Your task to perform on an android device: stop showing notifications on the lock screen Image 0: 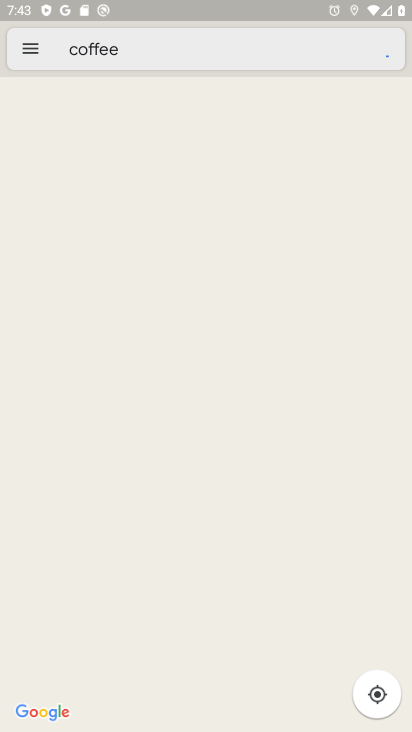
Step 0: press home button
Your task to perform on an android device: stop showing notifications on the lock screen Image 1: 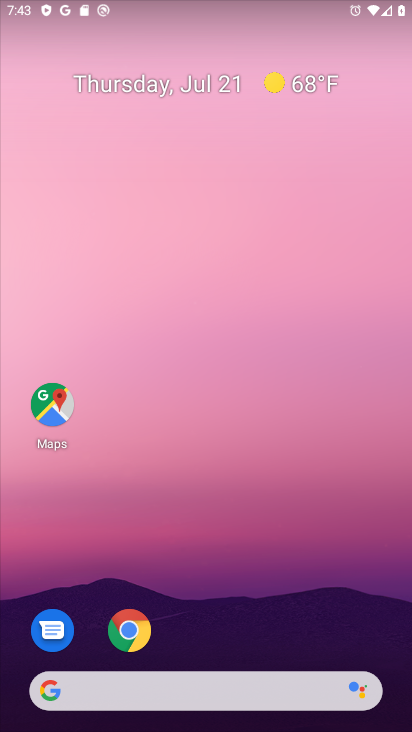
Step 1: drag from (268, 595) to (274, 164)
Your task to perform on an android device: stop showing notifications on the lock screen Image 2: 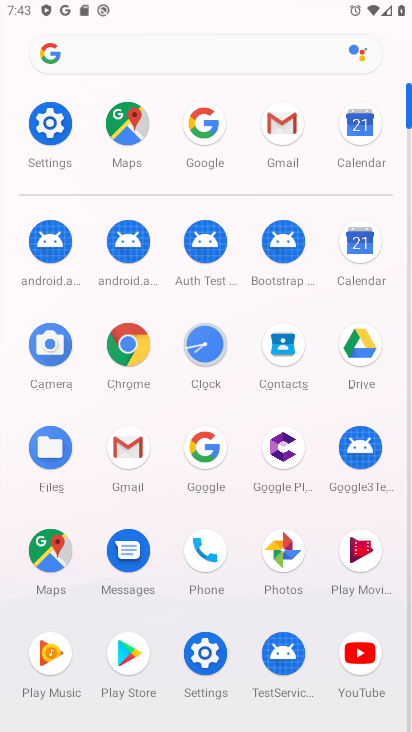
Step 2: click (36, 110)
Your task to perform on an android device: stop showing notifications on the lock screen Image 3: 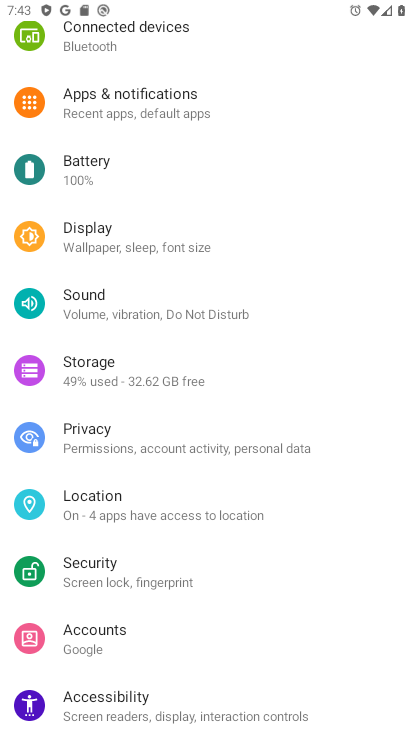
Step 3: click (149, 91)
Your task to perform on an android device: stop showing notifications on the lock screen Image 4: 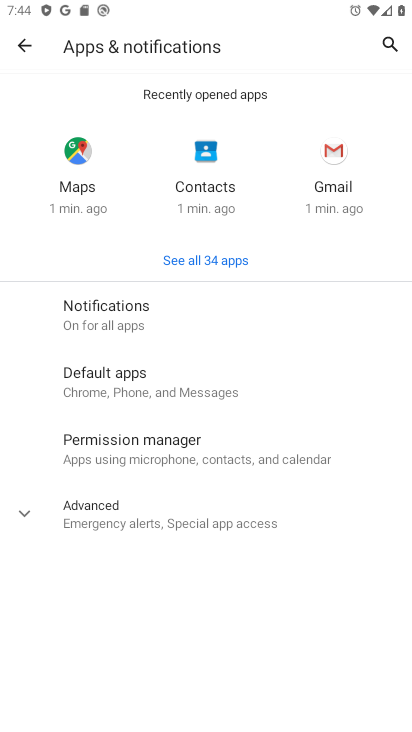
Step 4: click (85, 307)
Your task to perform on an android device: stop showing notifications on the lock screen Image 5: 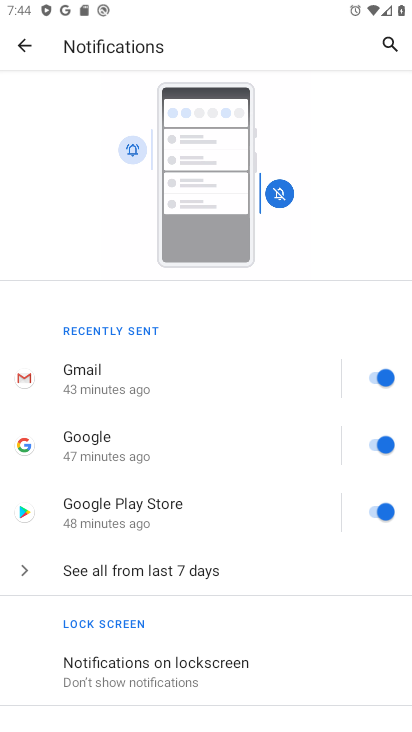
Step 5: click (157, 679)
Your task to perform on an android device: stop showing notifications on the lock screen Image 6: 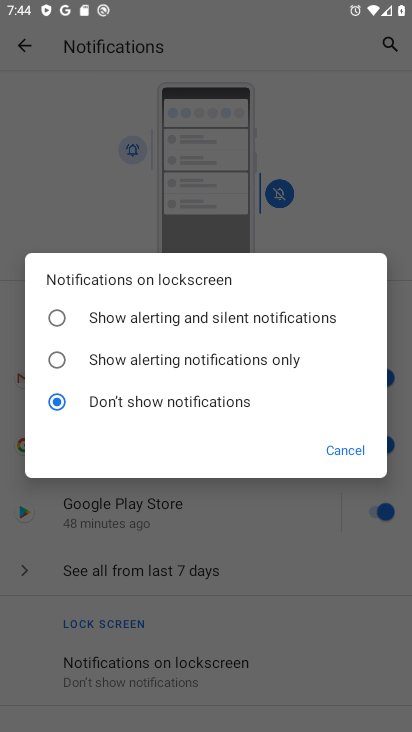
Step 6: task complete